Your task to perform on an android device: empty trash in google photos Image 0: 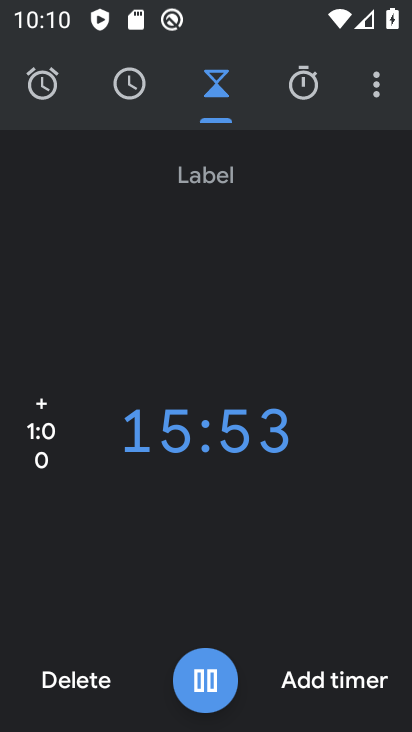
Step 0: press home button
Your task to perform on an android device: empty trash in google photos Image 1: 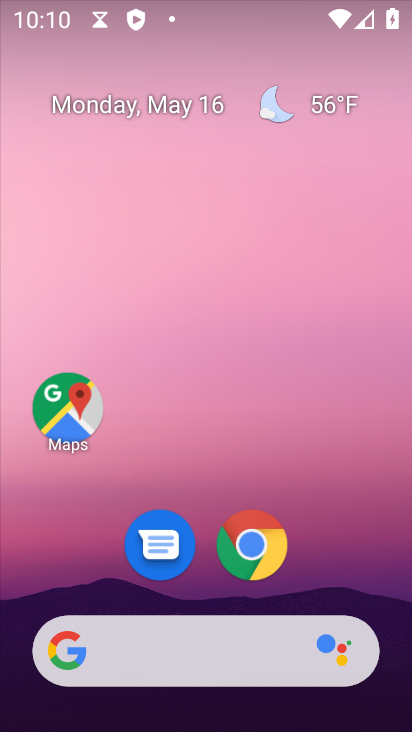
Step 1: drag from (376, 602) to (379, 124)
Your task to perform on an android device: empty trash in google photos Image 2: 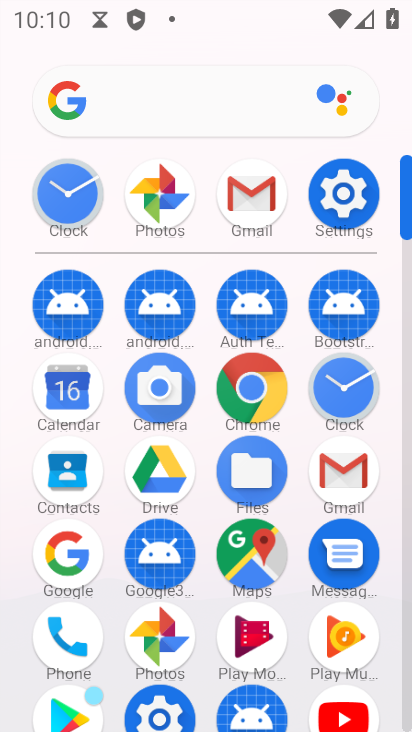
Step 2: click (145, 195)
Your task to perform on an android device: empty trash in google photos Image 3: 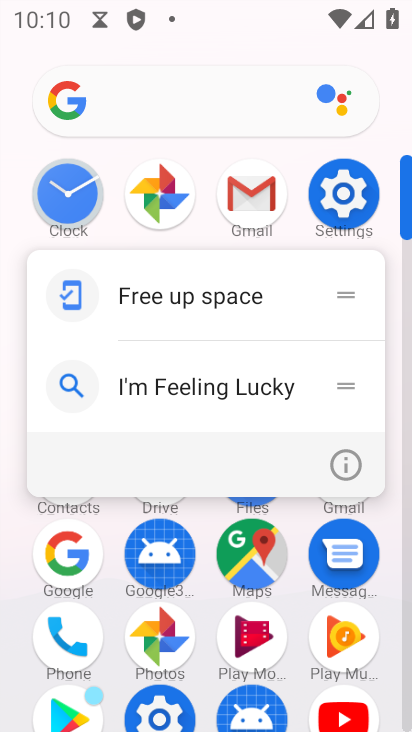
Step 3: click (149, 195)
Your task to perform on an android device: empty trash in google photos Image 4: 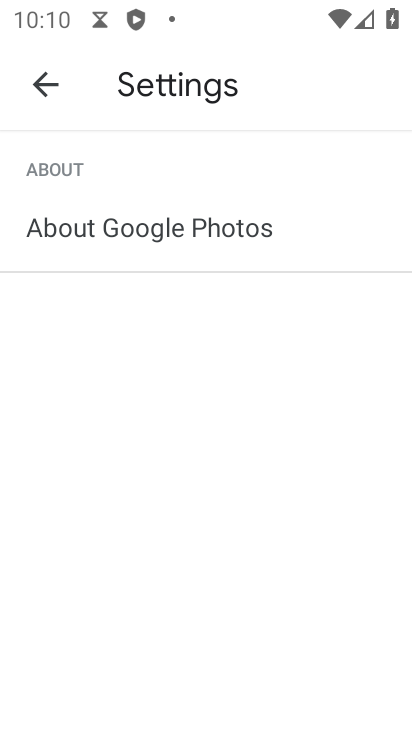
Step 4: press back button
Your task to perform on an android device: empty trash in google photos Image 5: 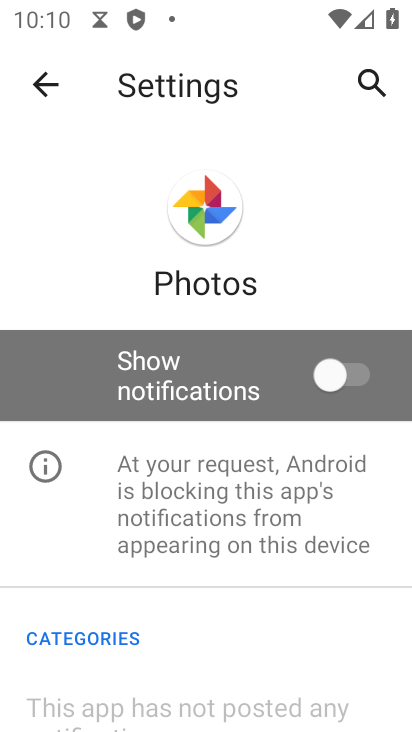
Step 5: press back button
Your task to perform on an android device: empty trash in google photos Image 6: 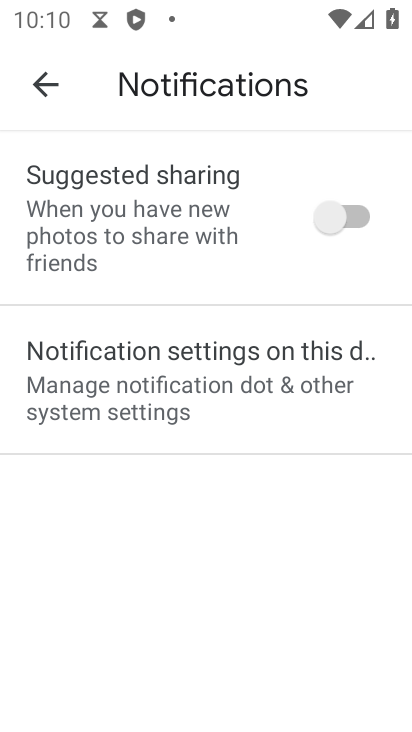
Step 6: press back button
Your task to perform on an android device: empty trash in google photos Image 7: 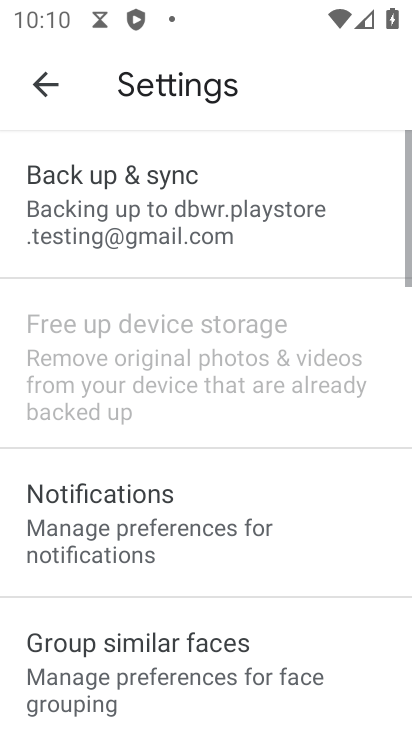
Step 7: press back button
Your task to perform on an android device: empty trash in google photos Image 8: 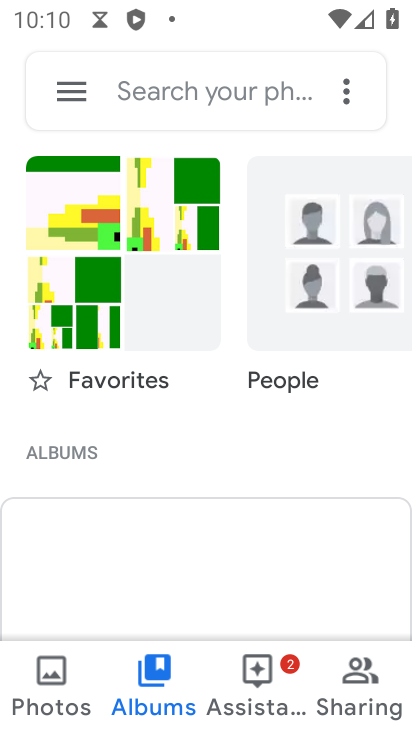
Step 8: click (80, 79)
Your task to perform on an android device: empty trash in google photos Image 9: 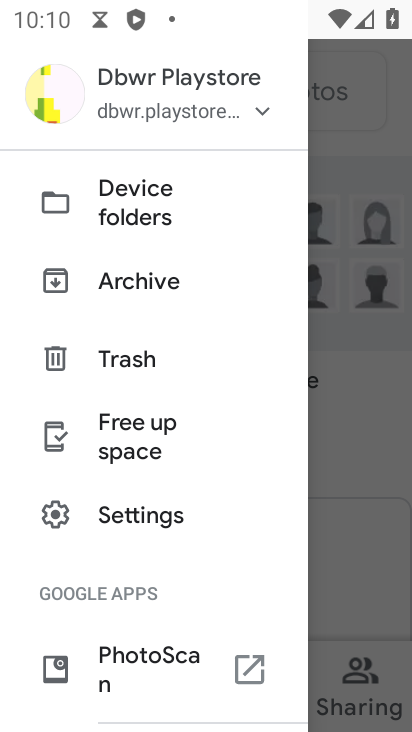
Step 9: click (125, 362)
Your task to perform on an android device: empty trash in google photos Image 10: 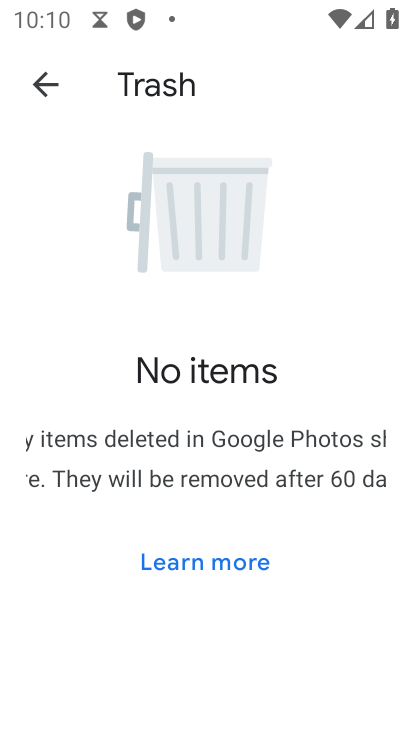
Step 10: task complete